Your task to perform on an android device: turn off data saver in the chrome app Image 0: 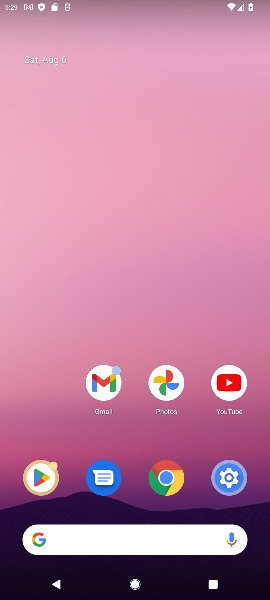
Step 0: click (173, 475)
Your task to perform on an android device: turn off data saver in the chrome app Image 1: 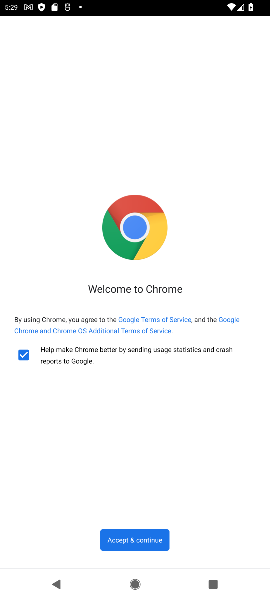
Step 1: click (158, 536)
Your task to perform on an android device: turn off data saver in the chrome app Image 2: 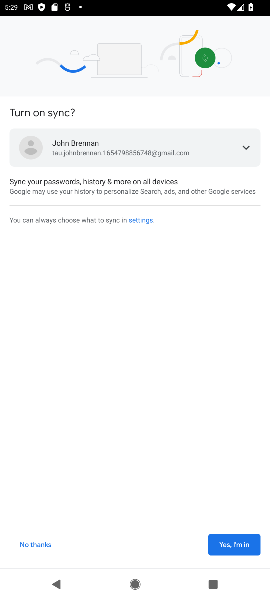
Step 2: click (236, 544)
Your task to perform on an android device: turn off data saver in the chrome app Image 3: 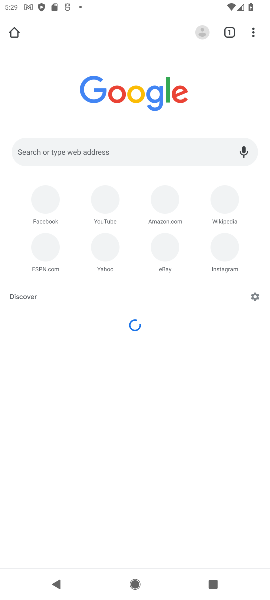
Step 3: drag from (256, 20) to (159, 283)
Your task to perform on an android device: turn off data saver in the chrome app Image 4: 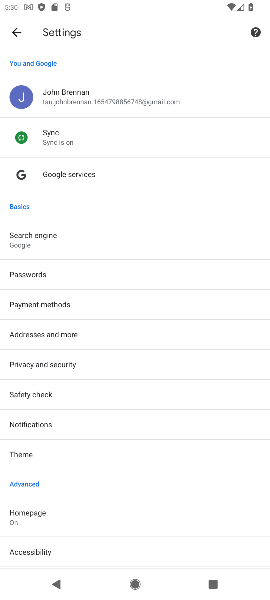
Step 4: drag from (114, 486) to (200, 180)
Your task to perform on an android device: turn off data saver in the chrome app Image 5: 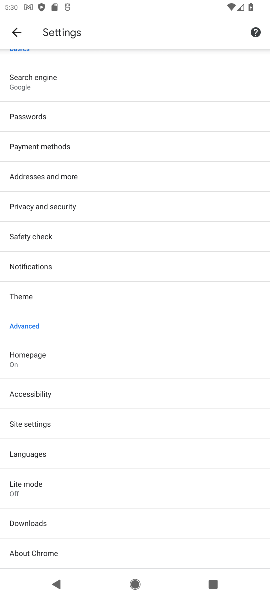
Step 5: click (15, 489)
Your task to perform on an android device: turn off data saver in the chrome app Image 6: 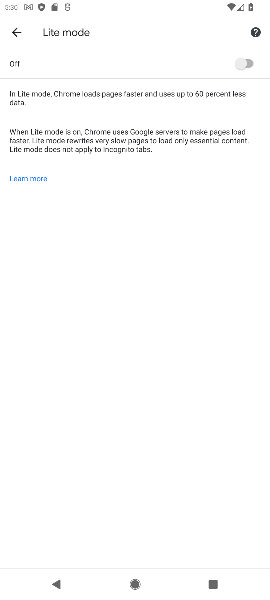
Step 6: task complete